Your task to perform on an android device: What's the weather? Image 0: 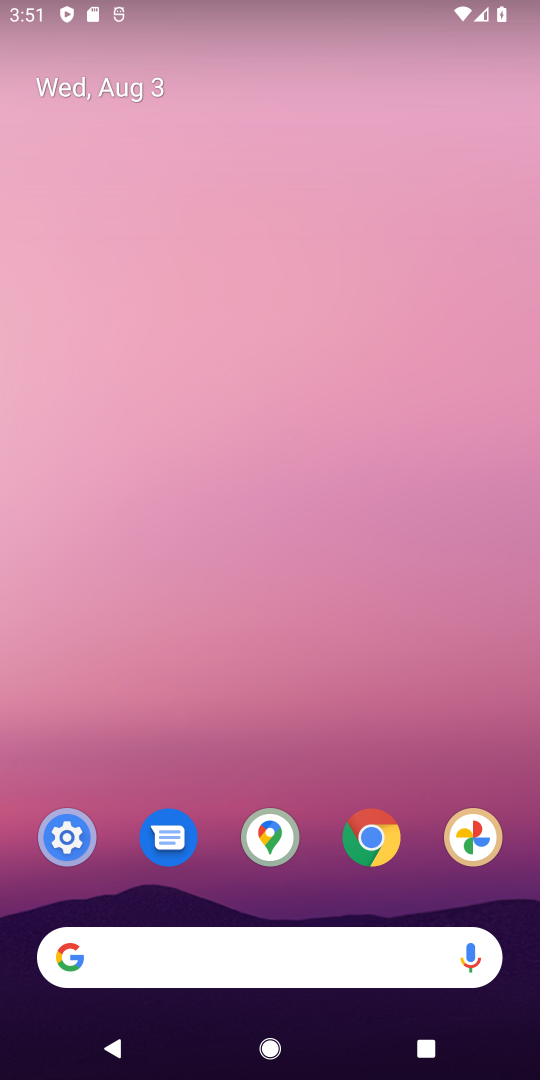
Step 0: drag from (2, 595) to (536, 540)
Your task to perform on an android device: What's the weather? Image 1: 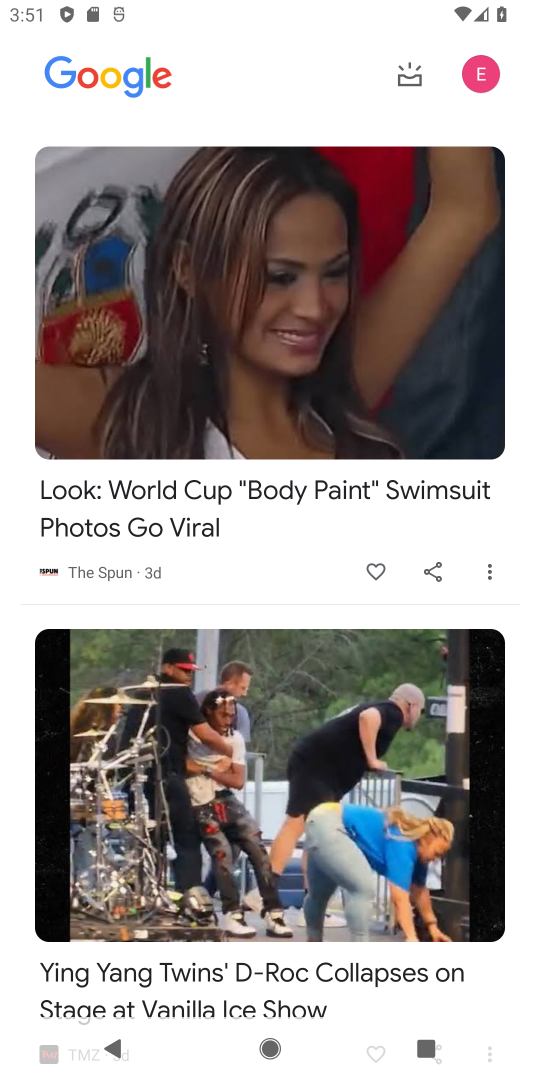
Step 1: drag from (525, 541) to (10, 481)
Your task to perform on an android device: What's the weather? Image 2: 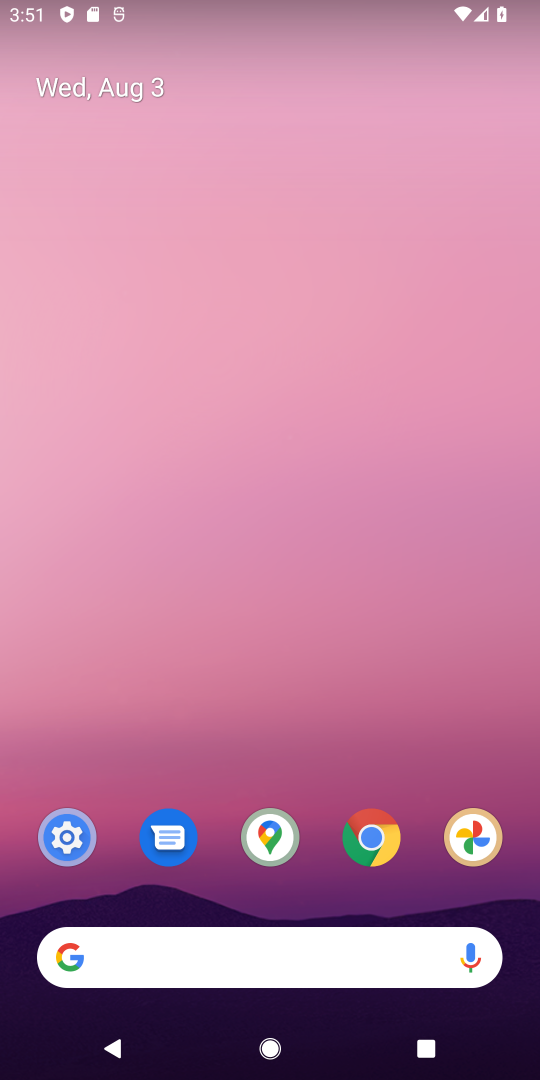
Step 2: click (149, 955)
Your task to perform on an android device: What's the weather? Image 3: 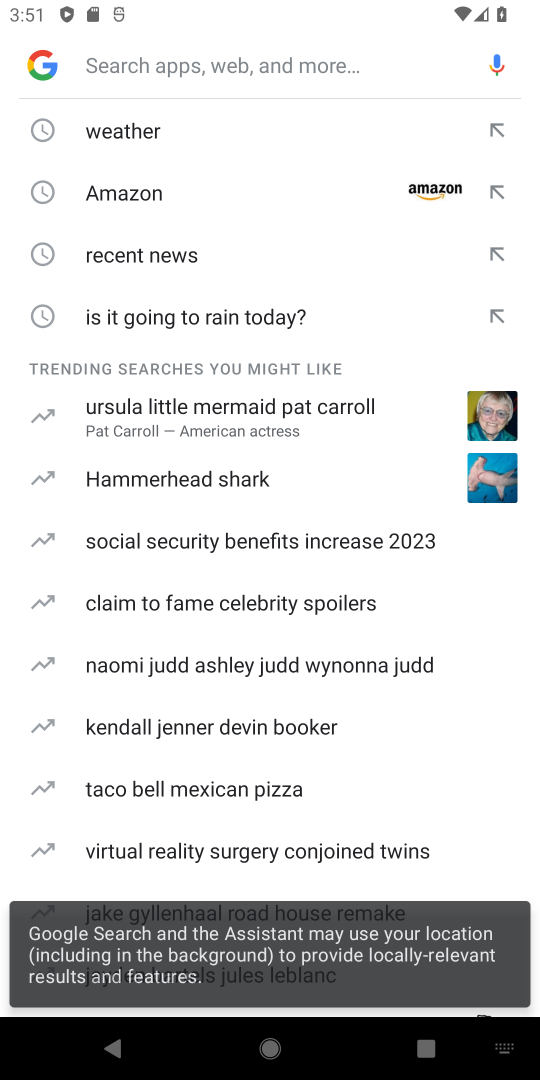
Step 3: click (132, 132)
Your task to perform on an android device: What's the weather? Image 4: 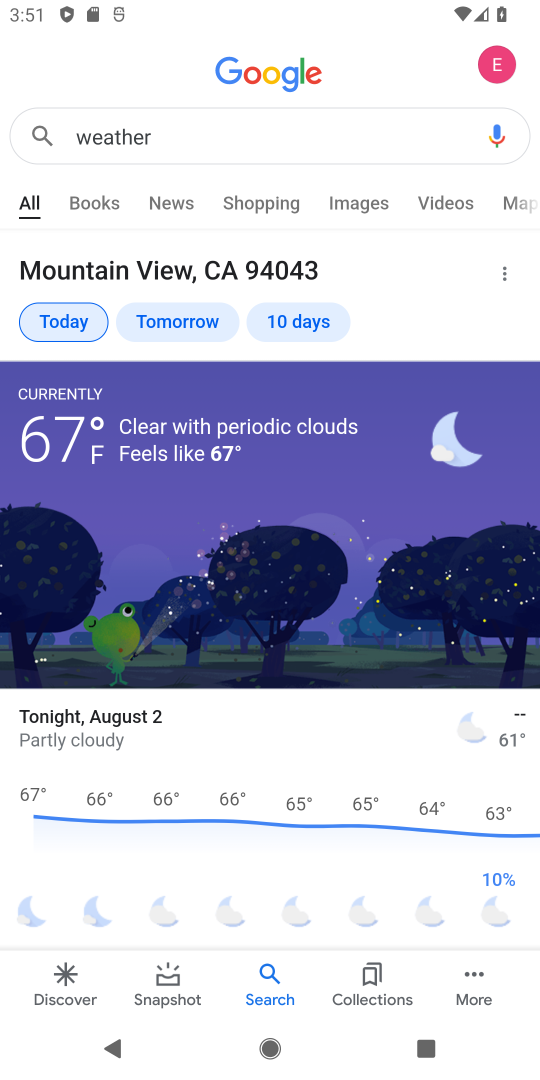
Step 4: task complete